Your task to perform on an android device: turn off smart reply in the gmail app Image 0: 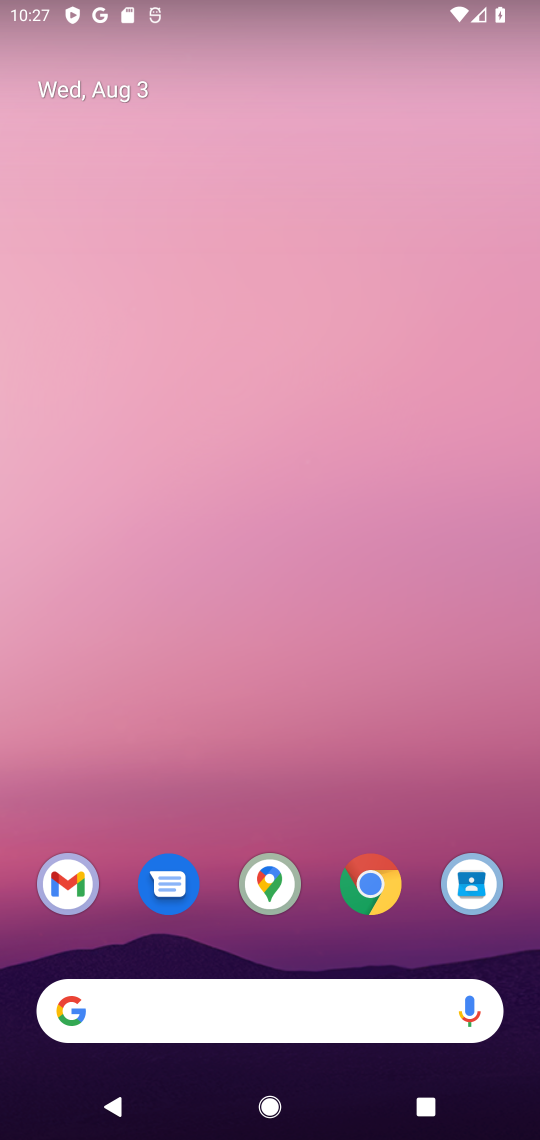
Step 0: click (57, 891)
Your task to perform on an android device: turn off smart reply in the gmail app Image 1: 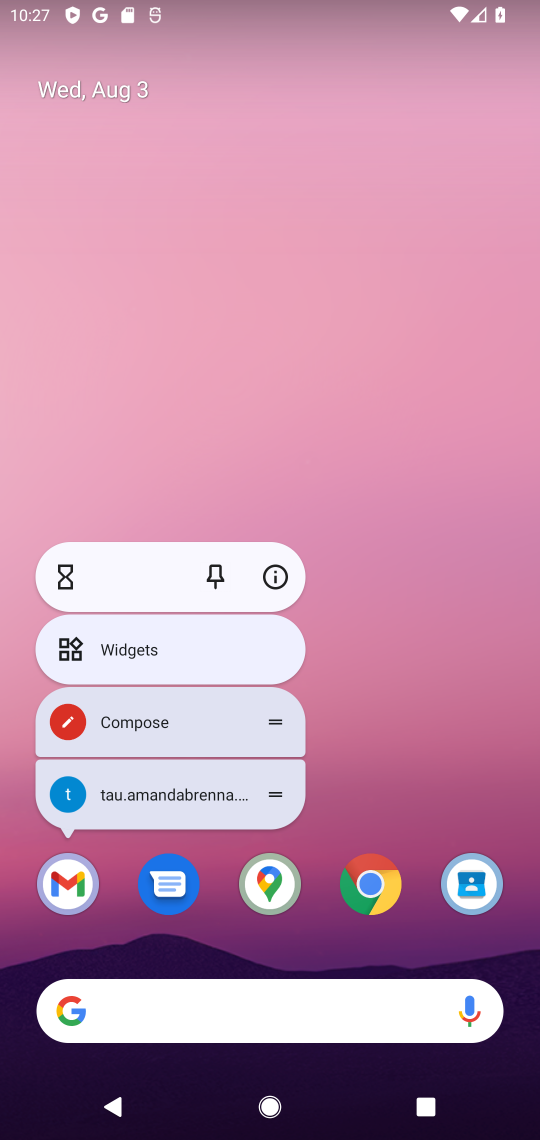
Step 1: click (65, 881)
Your task to perform on an android device: turn off smart reply in the gmail app Image 2: 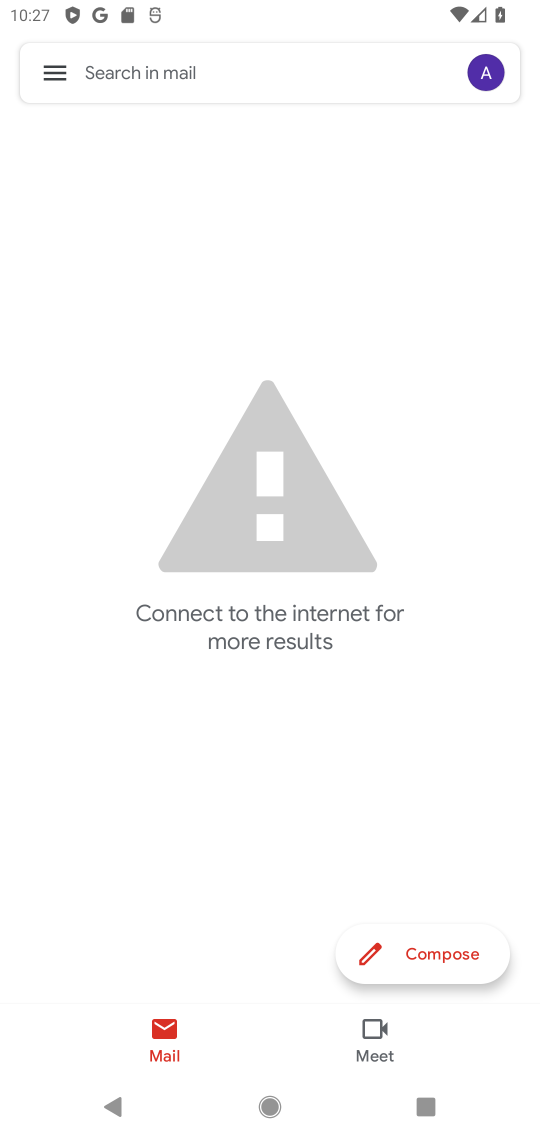
Step 2: click (57, 80)
Your task to perform on an android device: turn off smart reply in the gmail app Image 3: 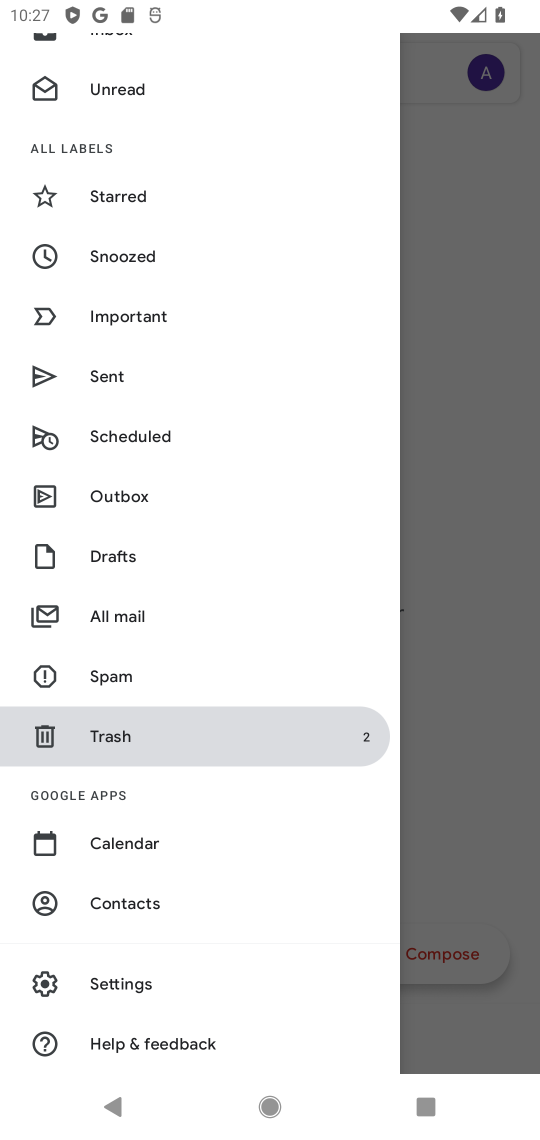
Step 3: click (103, 989)
Your task to perform on an android device: turn off smart reply in the gmail app Image 4: 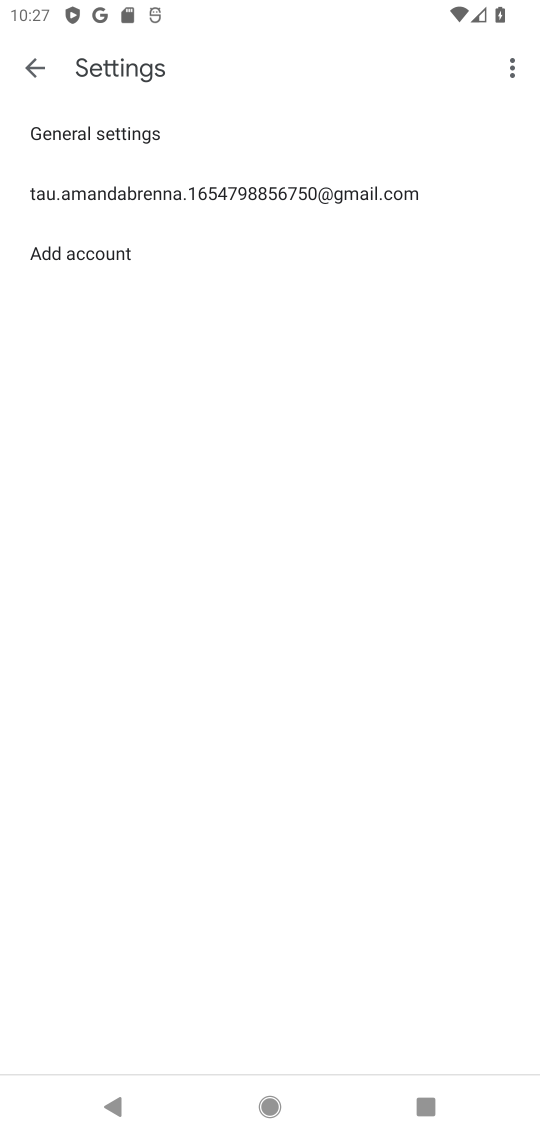
Step 4: click (185, 200)
Your task to perform on an android device: turn off smart reply in the gmail app Image 5: 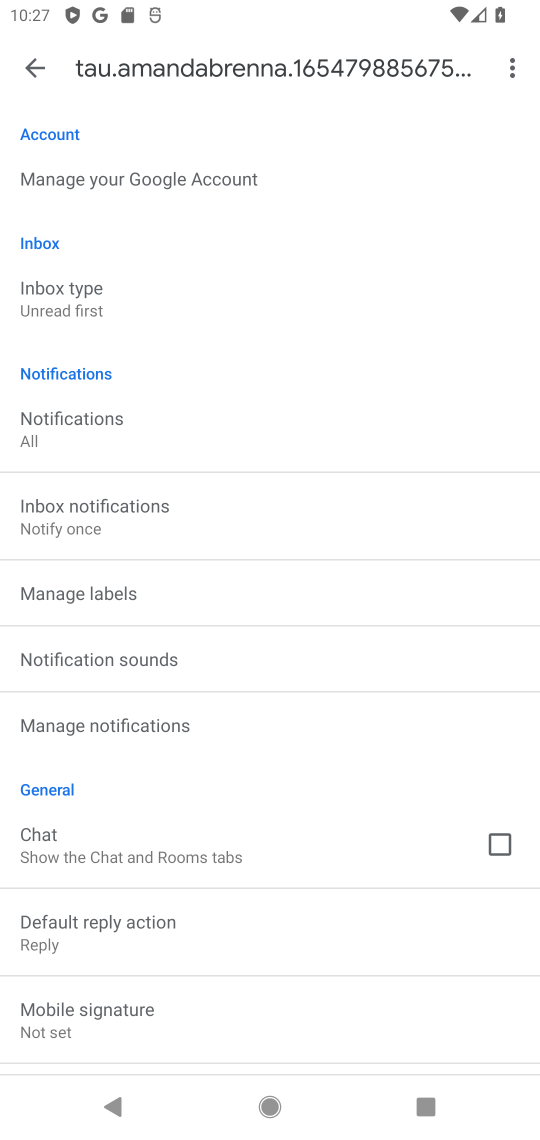
Step 5: task complete